Your task to perform on an android device: delete a single message in the gmail app Image 0: 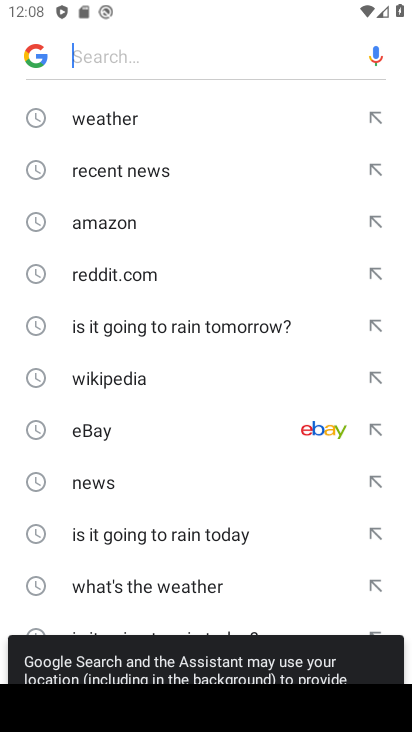
Step 0: press back button
Your task to perform on an android device: delete a single message in the gmail app Image 1: 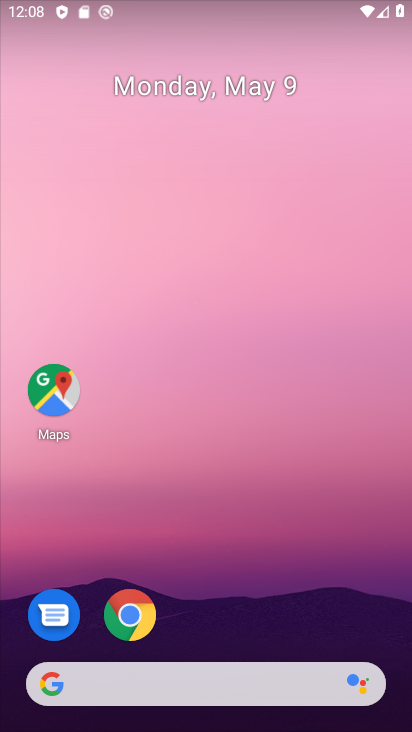
Step 1: drag from (236, 581) to (187, 68)
Your task to perform on an android device: delete a single message in the gmail app Image 2: 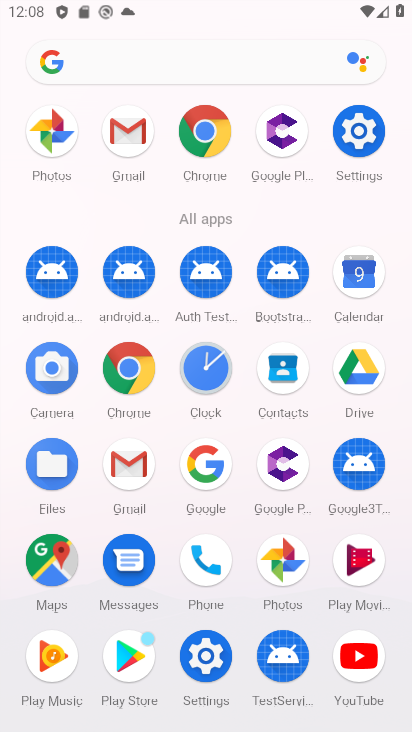
Step 2: click (124, 134)
Your task to perform on an android device: delete a single message in the gmail app Image 3: 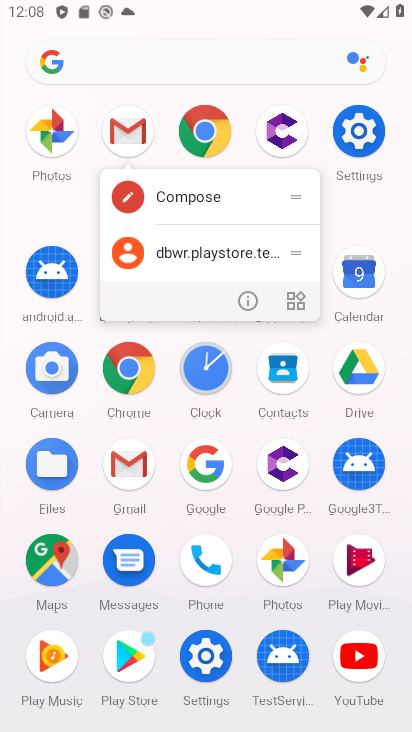
Step 3: click (121, 133)
Your task to perform on an android device: delete a single message in the gmail app Image 4: 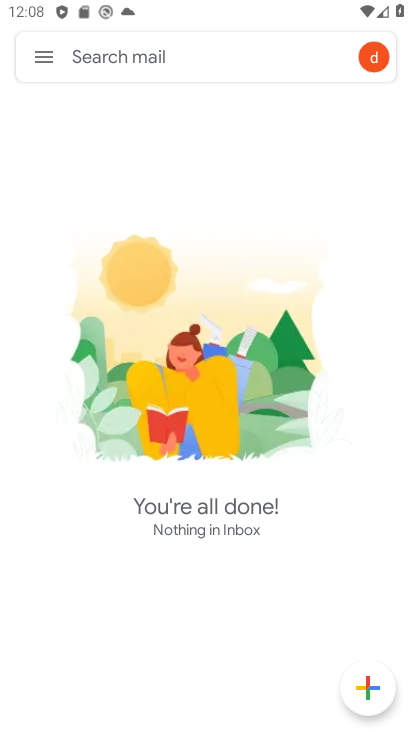
Step 4: click (38, 59)
Your task to perform on an android device: delete a single message in the gmail app Image 5: 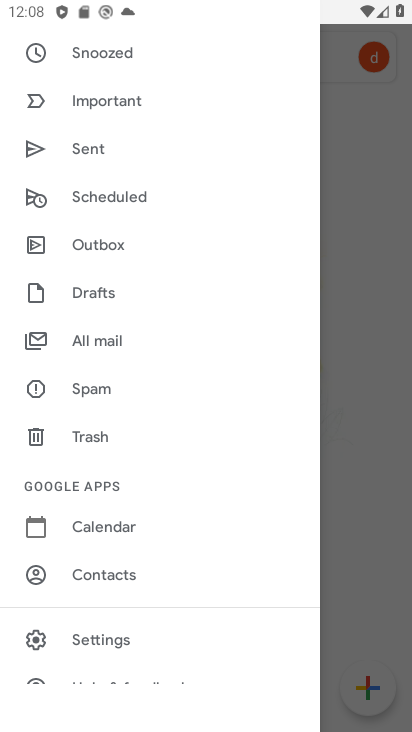
Step 5: drag from (231, 345) to (245, 399)
Your task to perform on an android device: delete a single message in the gmail app Image 6: 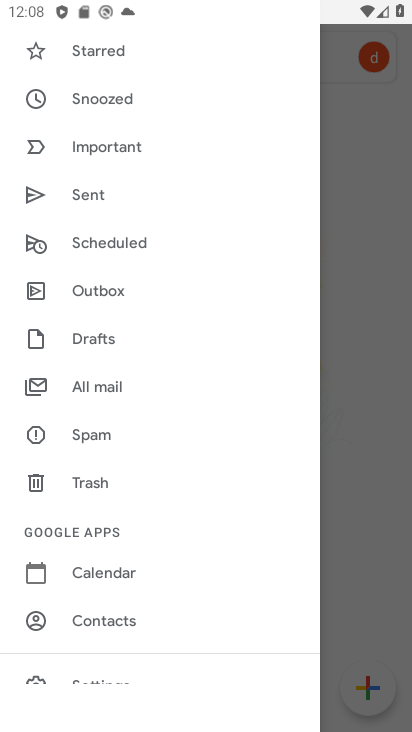
Step 6: click (137, 391)
Your task to perform on an android device: delete a single message in the gmail app Image 7: 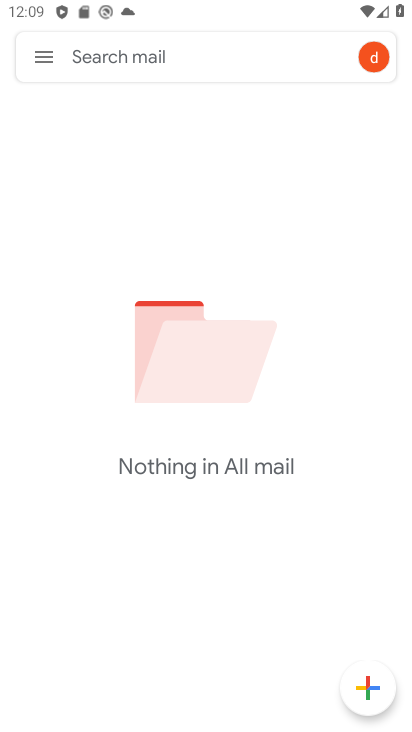
Step 7: click (45, 59)
Your task to perform on an android device: delete a single message in the gmail app Image 8: 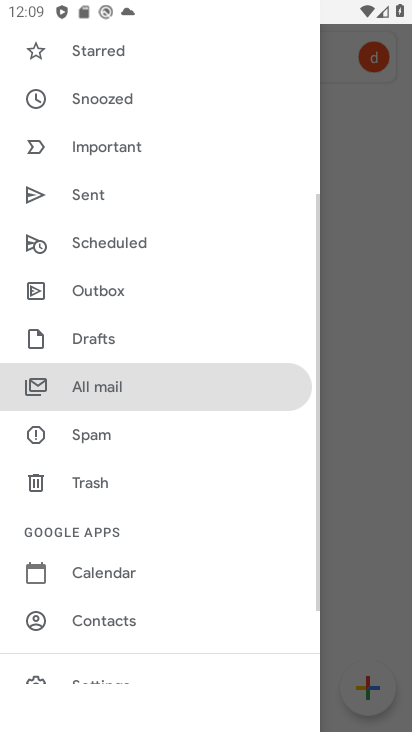
Step 8: drag from (145, 162) to (162, 238)
Your task to perform on an android device: delete a single message in the gmail app Image 9: 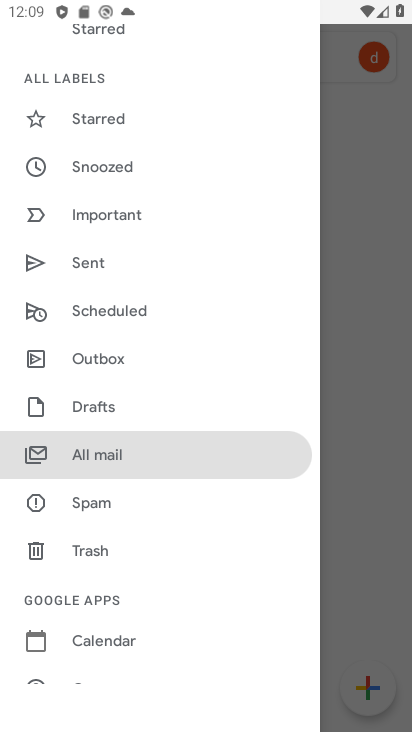
Step 9: drag from (119, 155) to (165, 260)
Your task to perform on an android device: delete a single message in the gmail app Image 10: 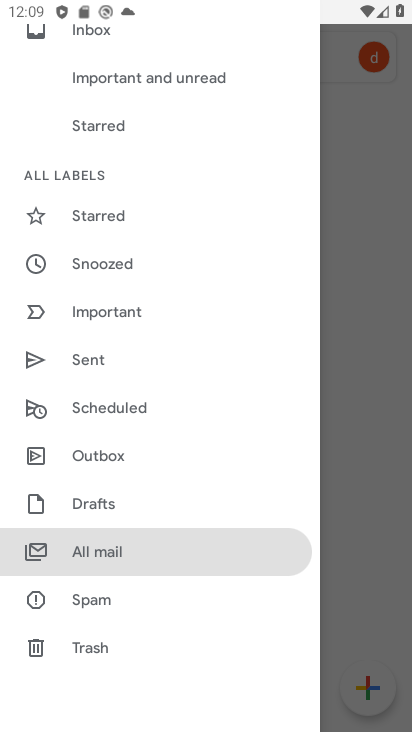
Step 10: drag from (121, 140) to (153, 247)
Your task to perform on an android device: delete a single message in the gmail app Image 11: 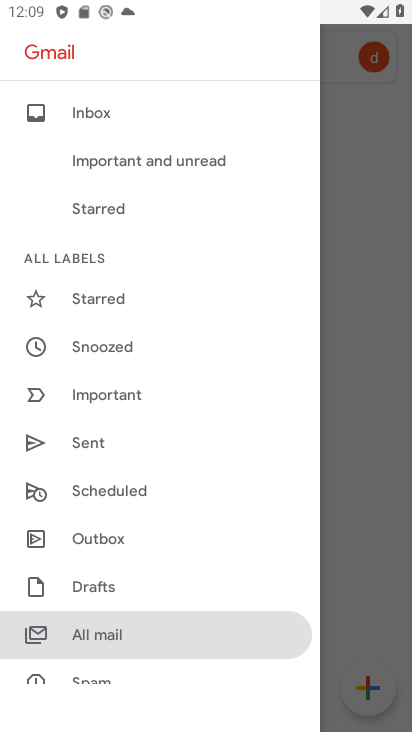
Step 11: click (70, 114)
Your task to perform on an android device: delete a single message in the gmail app Image 12: 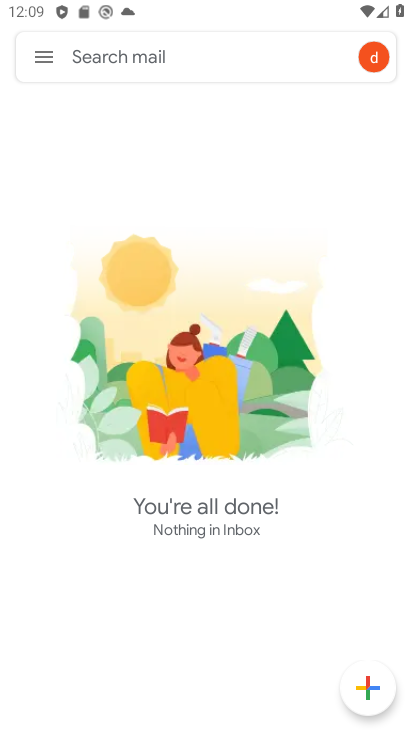
Step 12: click (47, 53)
Your task to perform on an android device: delete a single message in the gmail app Image 13: 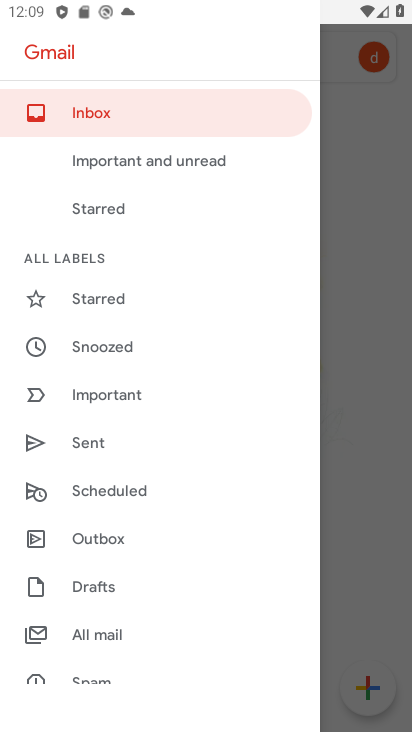
Step 13: drag from (126, 375) to (128, 275)
Your task to perform on an android device: delete a single message in the gmail app Image 14: 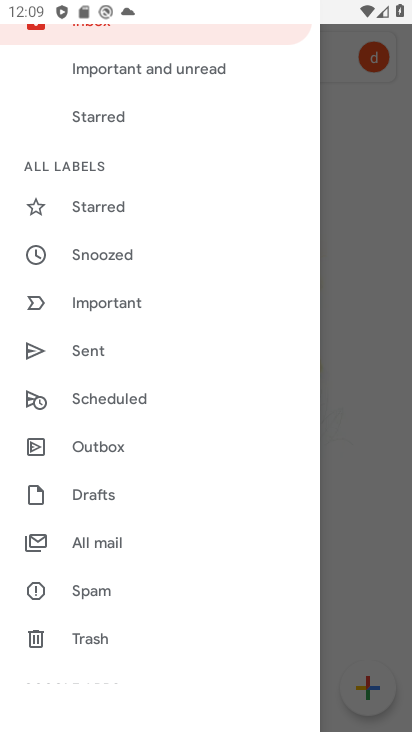
Step 14: drag from (112, 361) to (169, 271)
Your task to perform on an android device: delete a single message in the gmail app Image 15: 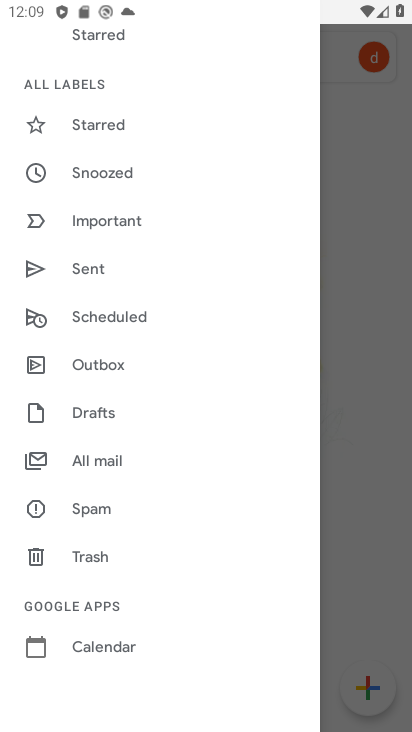
Step 15: drag from (142, 449) to (168, 333)
Your task to perform on an android device: delete a single message in the gmail app Image 16: 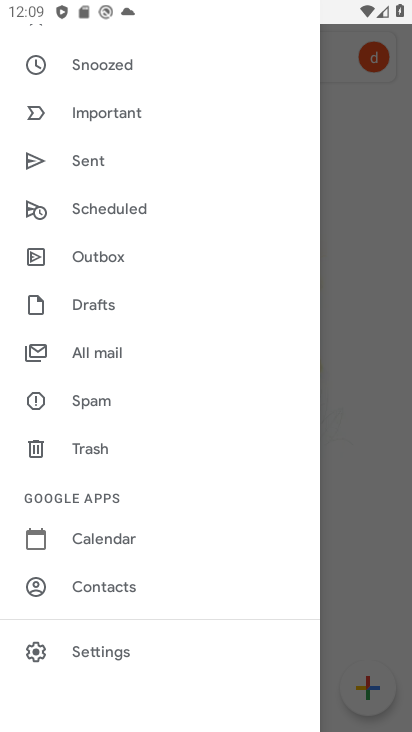
Step 16: click (102, 341)
Your task to perform on an android device: delete a single message in the gmail app Image 17: 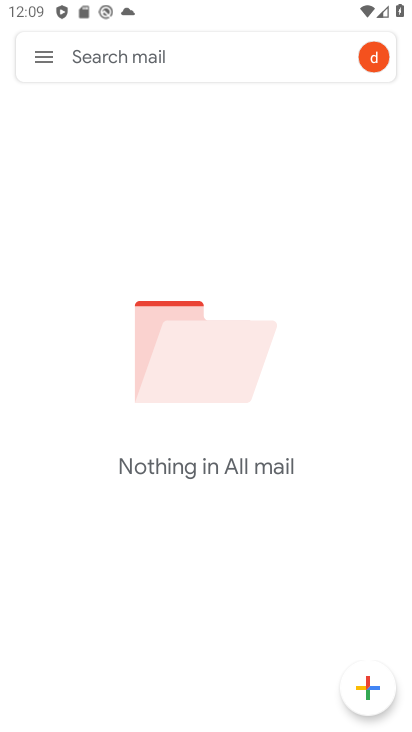
Step 17: click (35, 66)
Your task to perform on an android device: delete a single message in the gmail app Image 18: 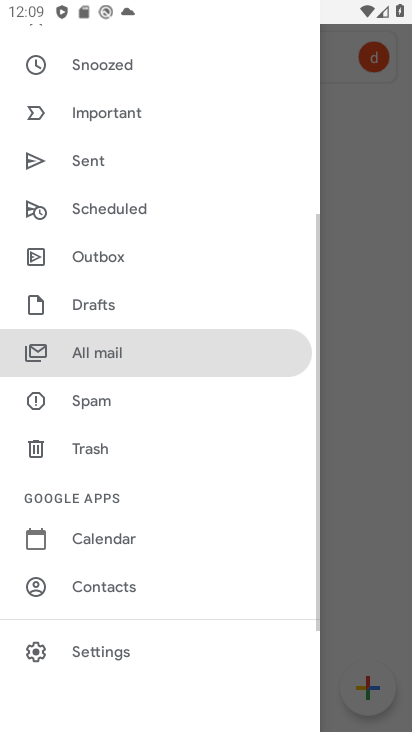
Step 18: drag from (103, 454) to (125, 387)
Your task to perform on an android device: delete a single message in the gmail app Image 19: 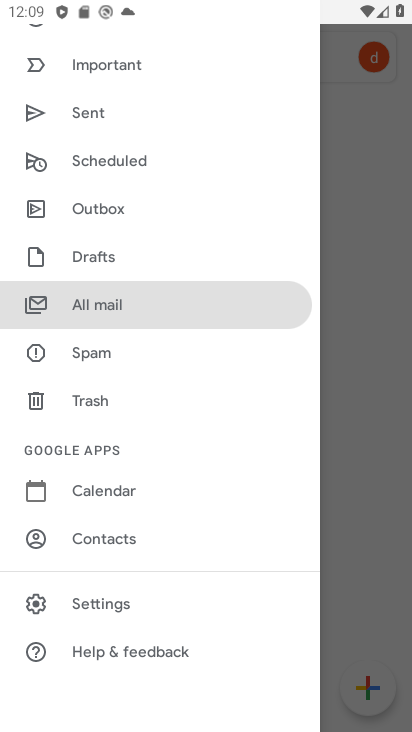
Step 19: click (100, 399)
Your task to perform on an android device: delete a single message in the gmail app Image 20: 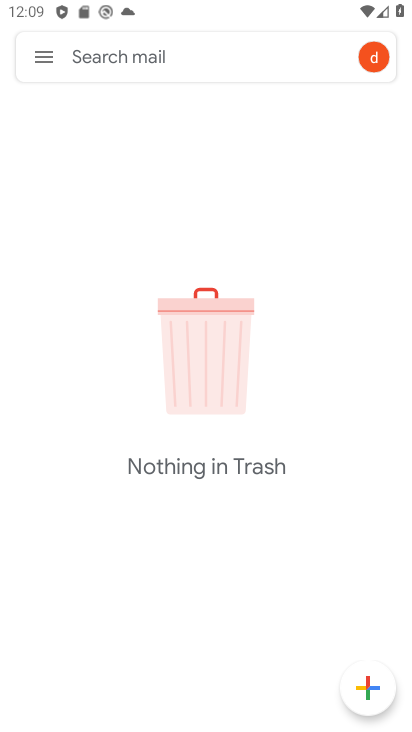
Step 20: task complete